Your task to perform on an android device: all mails in gmail Image 0: 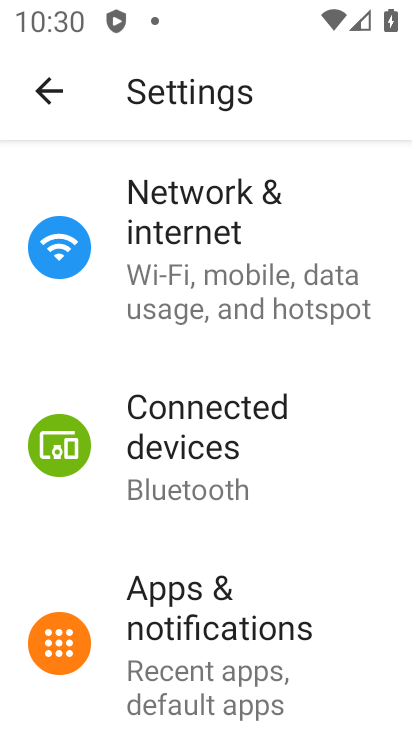
Step 0: press home button
Your task to perform on an android device: all mails in gmail Image 1: 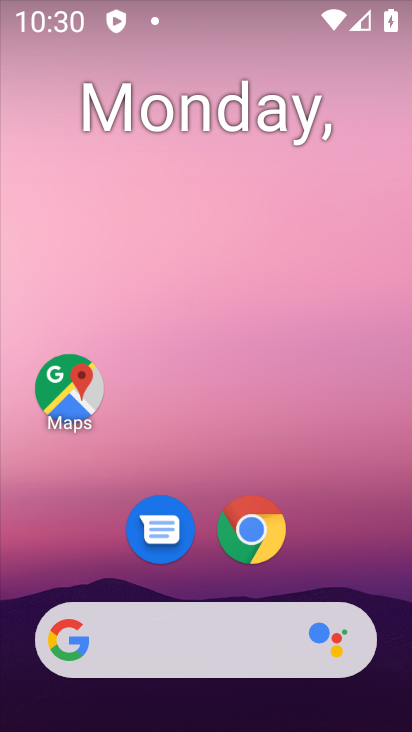
Step 1: drag from (102, 530) to (226, 7)
Your task to perform on an android device: all mails in gmail Image 2: 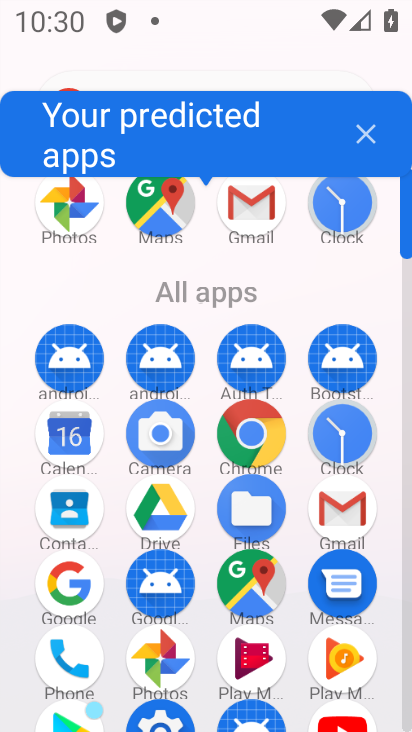
Step 2: drag from (177, 646) to (216, 481)
Your task to perform on an android device: all mails in gmail Image 3: 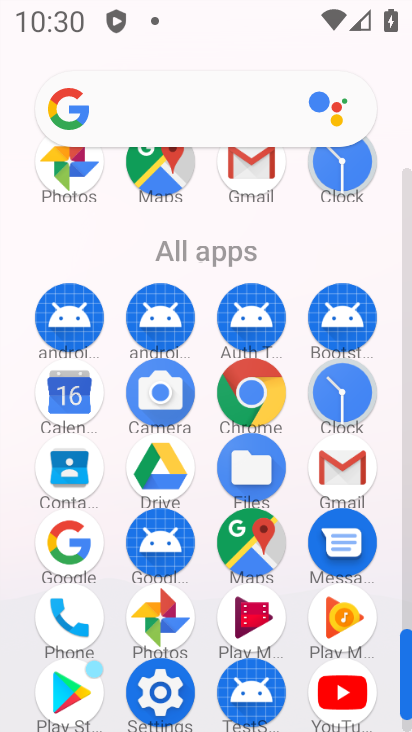
Step 3: click (343, 463)
Your task to perform on an android device: all mails in gmail Image 4: 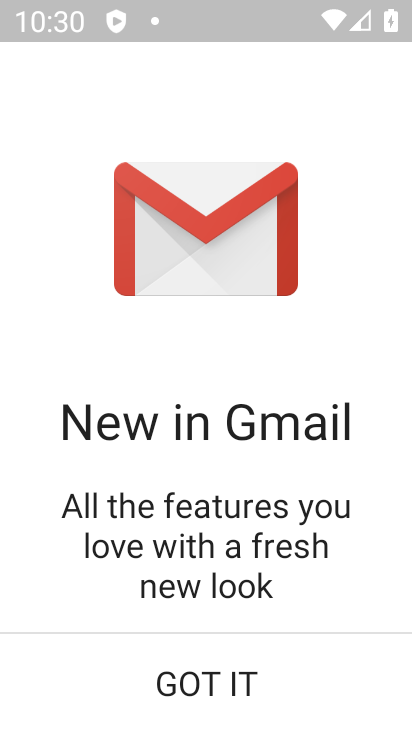
Step 4: click (209, 702)
Your task to perform on an android device: all mails in gmail Image 5: 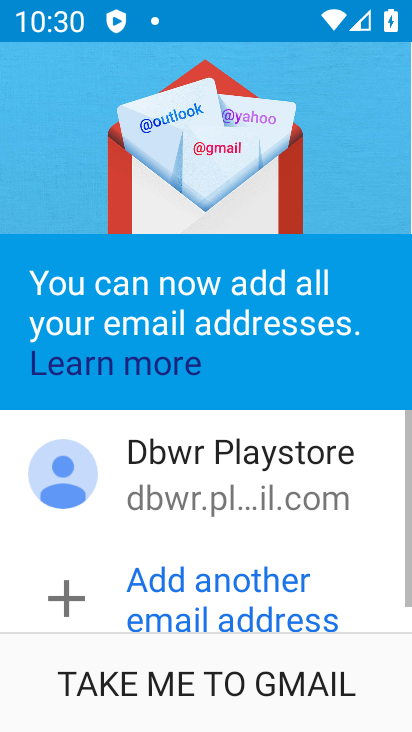
Step 5: click (240, 683)
Your task to perform on an android device: all mails in gmail Image 6: 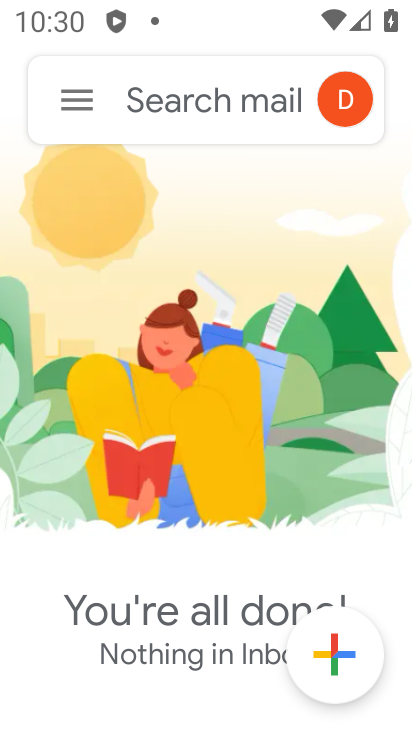
Step 6: click (83, 99)
Your task to perform on an android device: all mails in gmail Image 7: 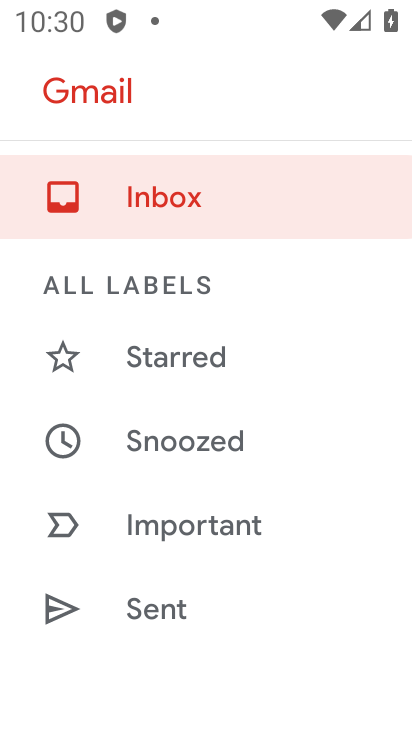
Step 7: drag from (184, 636) to (329, 189)
Your task to perform on an android device: all mails in gmail Image 8: 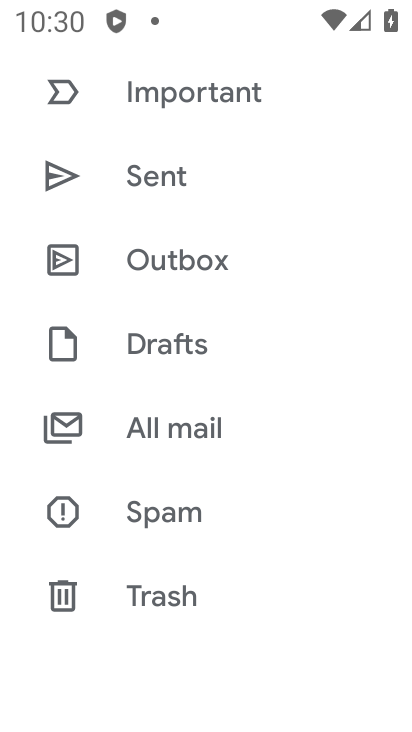
Step 8: click (212, 428)
Your task to perform on an android device: all mails in gmail Image 9: 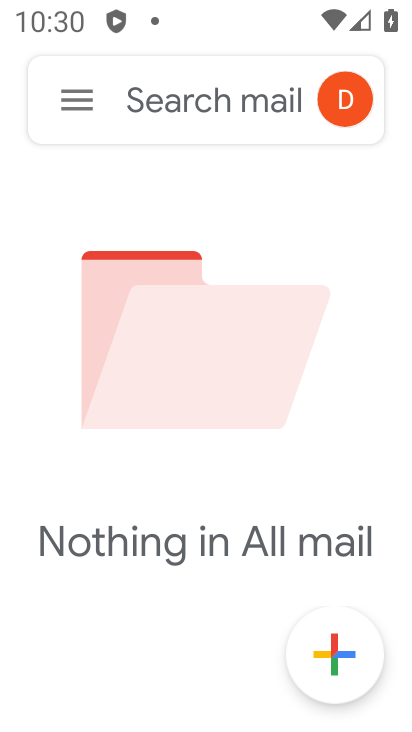
Step 9: task complete